Your task to perform on an android device: Go to location settings Image 0: 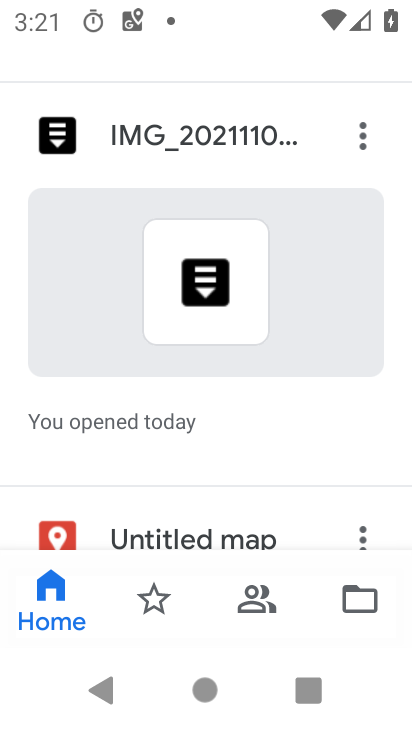
Step 0: press home button
Your task to perform on an android device: Go to location settings Image 1: 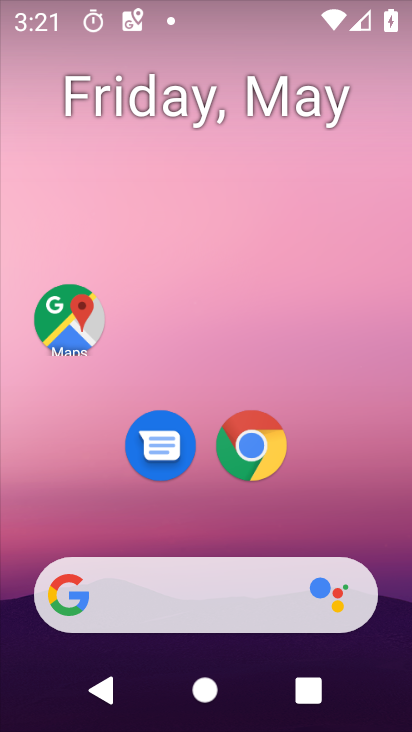
Step 1: drag from (232, 602) to (194, 64)
Your task to perform on an android device: Go to location settings Image 2: 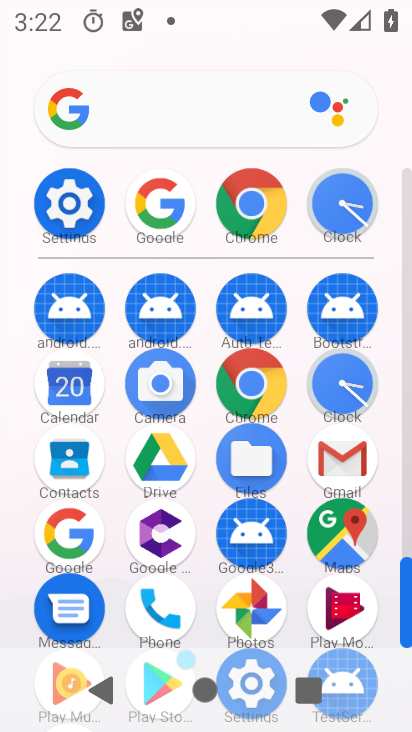
Step 2: click (59, 212)
Your task to perform on an android device: Go to location settings Image 3: 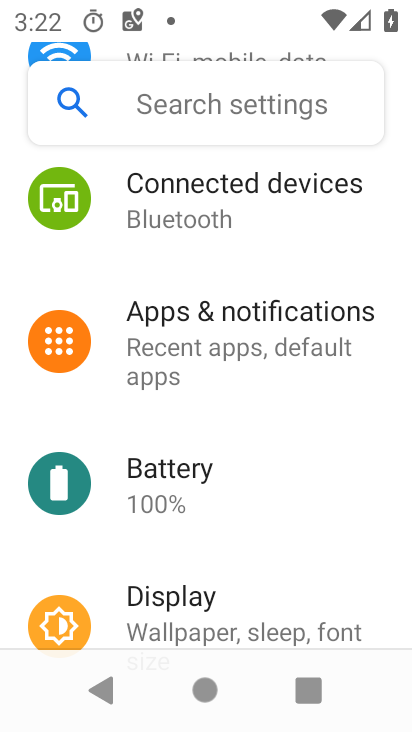
Step 3: drag from (206, 534) to (254, 137)
Your task to perform on an android device: Go to location settings Image 4: 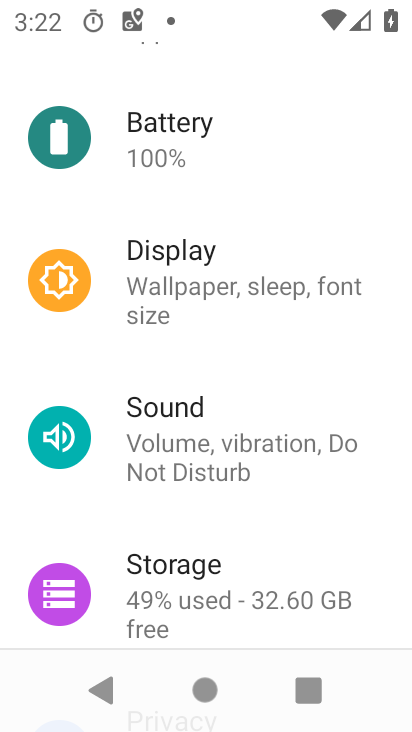
Step 4: drag from (246, 497) to (181, 209)
Your task to perform on an android device: Go to location settings Image 5: 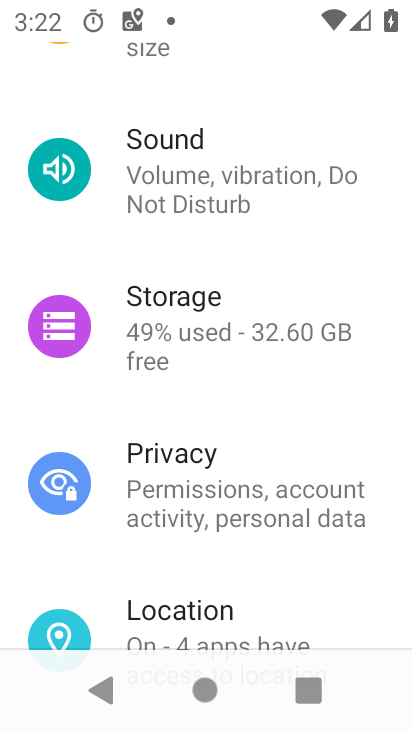
Step 5: drag from (219, 560) to (174, 318)
Your task to perform on an android device: Go to location settings Image 6: 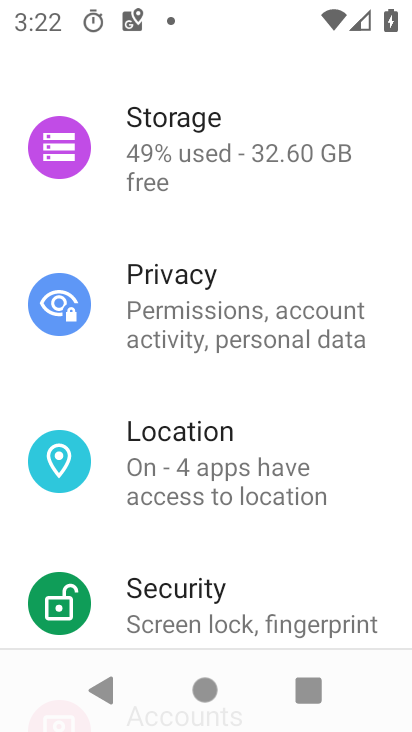
Step 6: click (220, 478)
Your task to perform on an android device: Go to location settings Image 7: 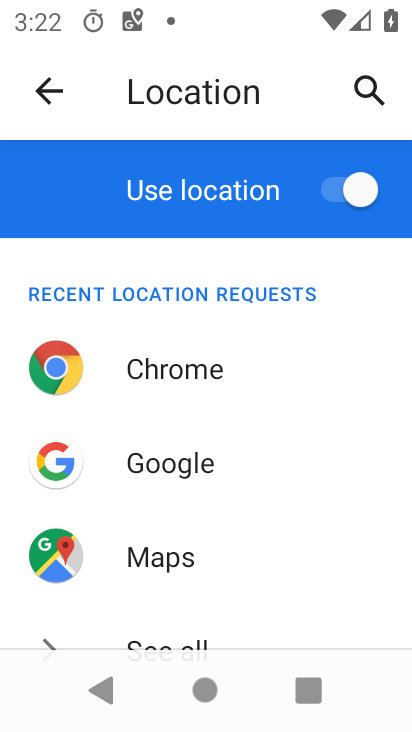
Step 7: drag from (221, 528) to (196, 50)
Your task to perform on an android device: Go to location settings Image 8: 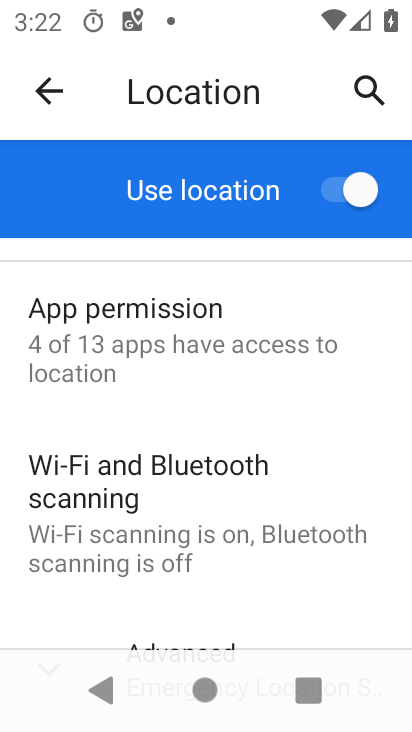
Step 8: drag from (245, 517) to (229, 289)
Your task to perform on an android device: Go to location settings Image 9: 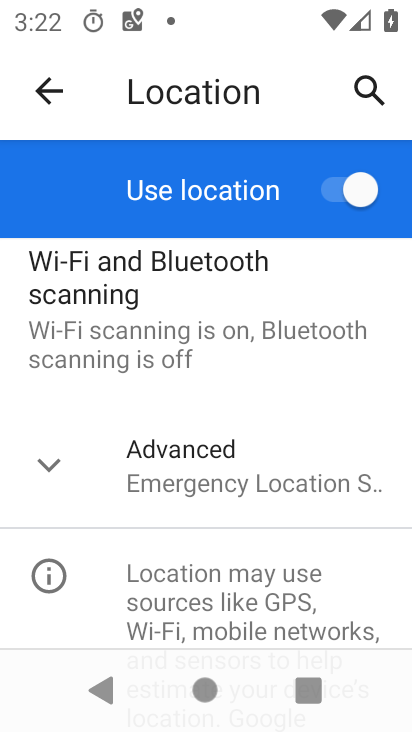
Step 9: click (243, 459)
Your task to perform on an android device: Go to location settings Image 10: 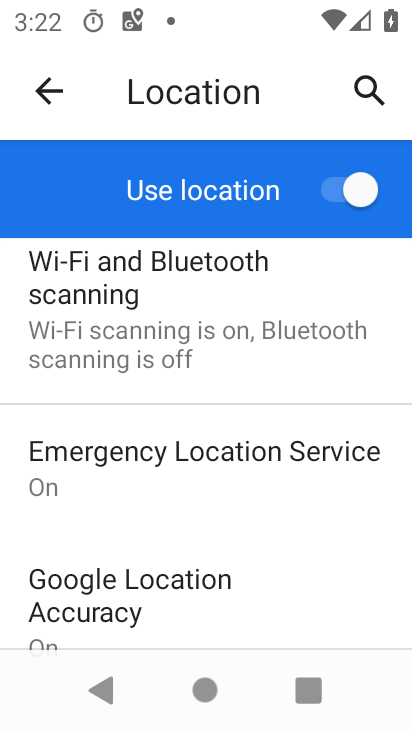
Step 10: type ""
Your task to perform on an android device: Go to location settings Image 11: 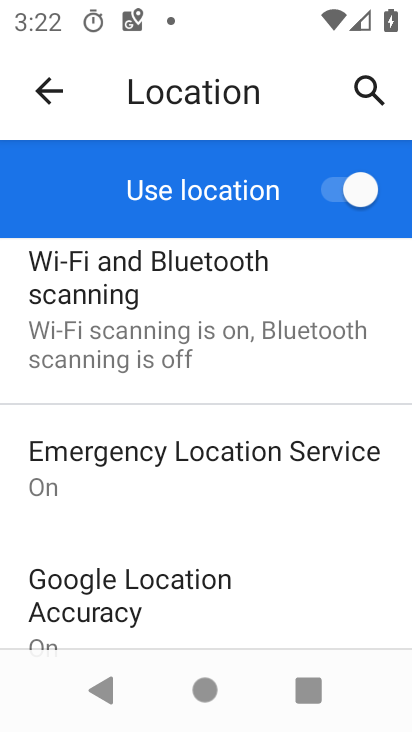
Step 11: task complete